Your task to perform on an android device: toggle priority inbox in the gmail app Image 0: 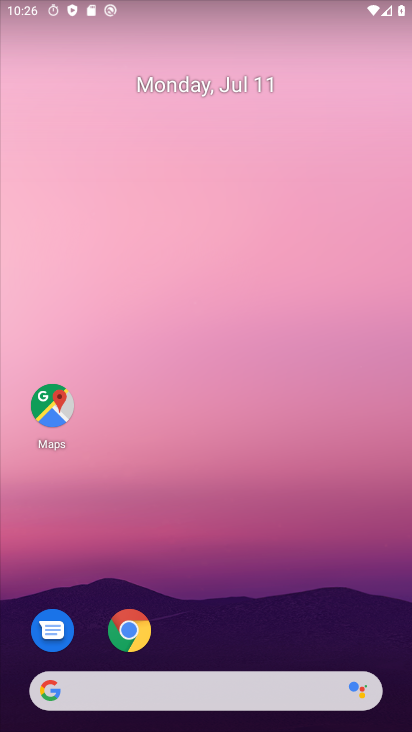
Step 0: drag from (181, 652) to (402, 35)
Your task to perform on an android device: toggle priority inbox in the gmail app Image 1: 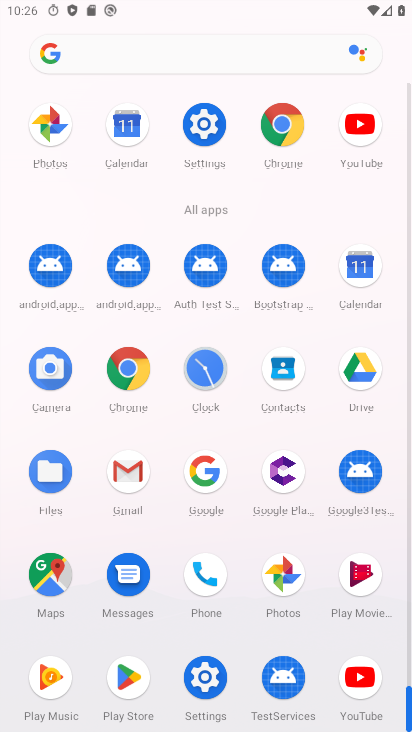
Step 1: click (130, 463)
Your task to perform on an android device: toggle priority inbox in the gmail app Image 2: 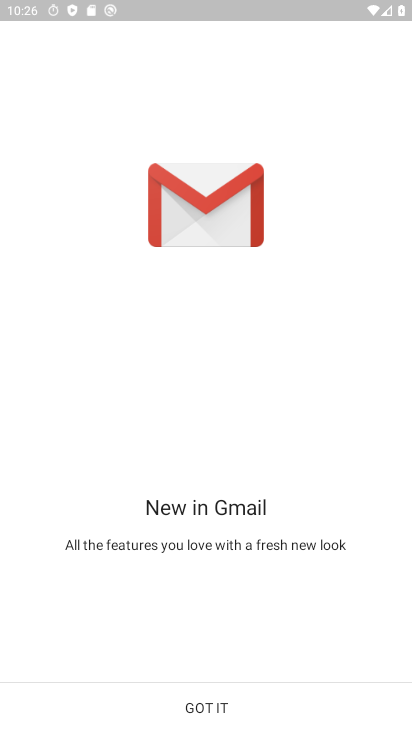
Step 2: click (232, 694)
Your task to perform on an android device: toggle priority inbox in the gmail app Image 3: 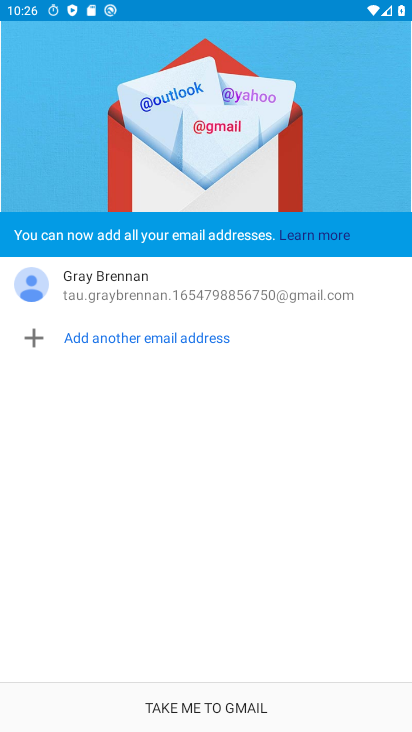
Step 3: click (209, 688)
Your task to perform on an android device: toggle priority inbox in the gmail app Image 4: 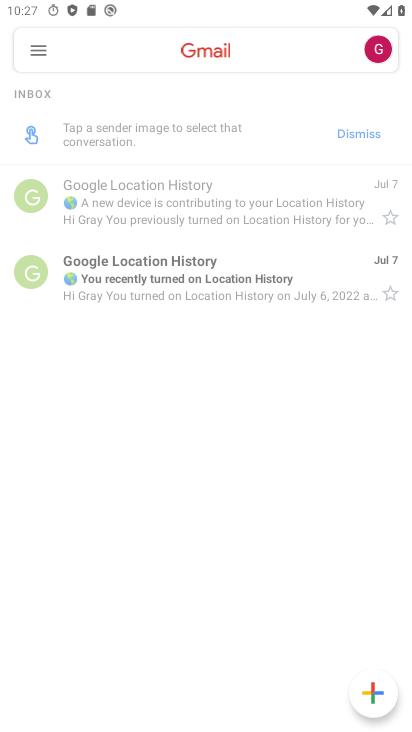
Step 4: click (35, 40)
Your task to perform on an android device: toggle priority inbox in the gmail app Image 5: 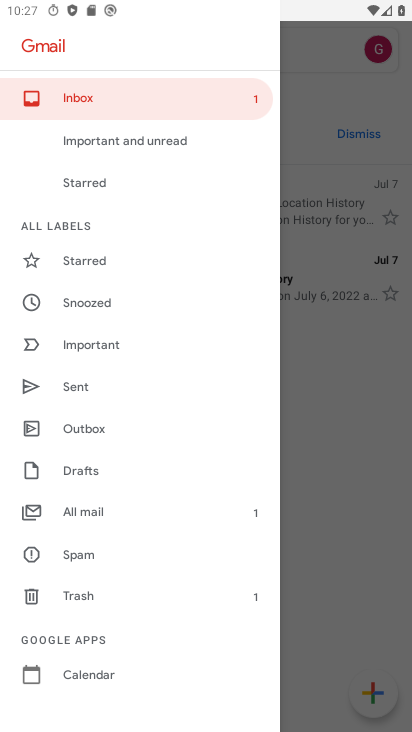
Step 5: drag from (118, 643) to (114, 154)
Your task to perform on an android device: toggle priority inbox in the gmail app Image 6: 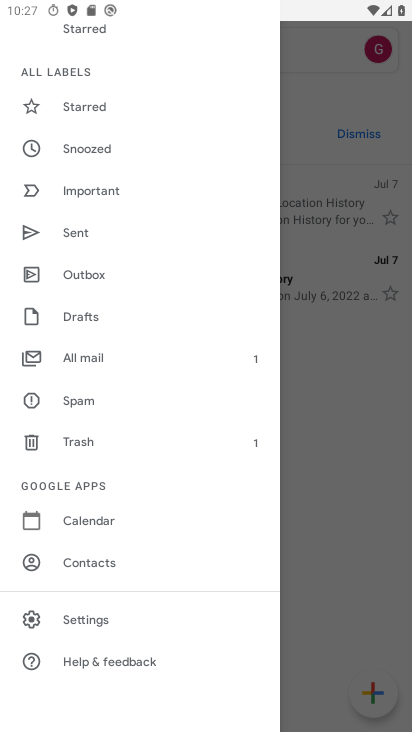
Step 6: click (87, 621)
Your task to perform on an android device: toggle priority inbox in the gmail app Image 7: 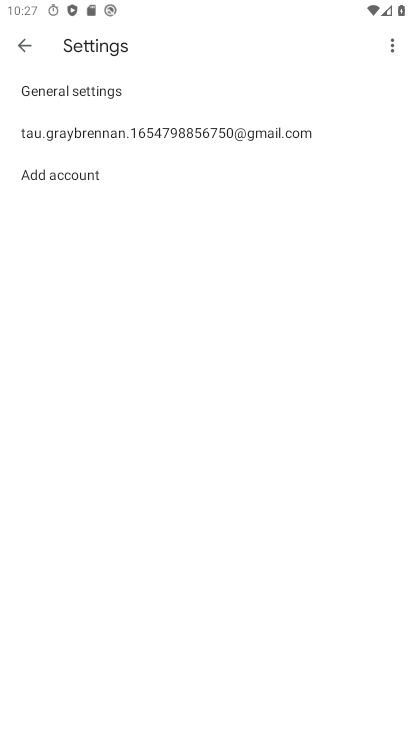
Step 7: click (230, 120)
Your task to perform on an android device: toggle priority inbox in the gmail app Image 8: 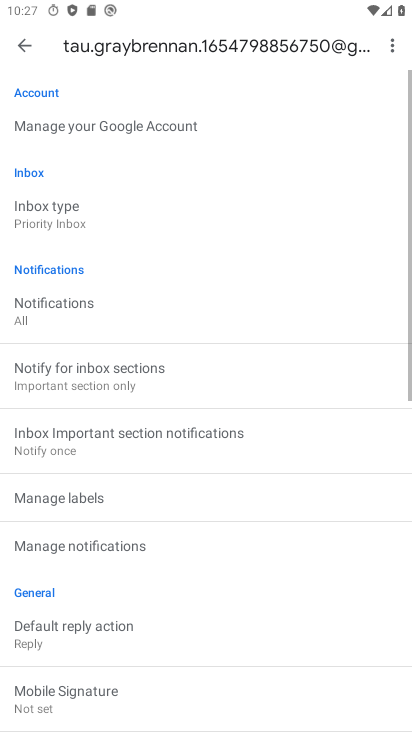
Step 8: click (69, 204)
Your task to perform on an android device: toggle priority inbox in the gmail app Image 9: 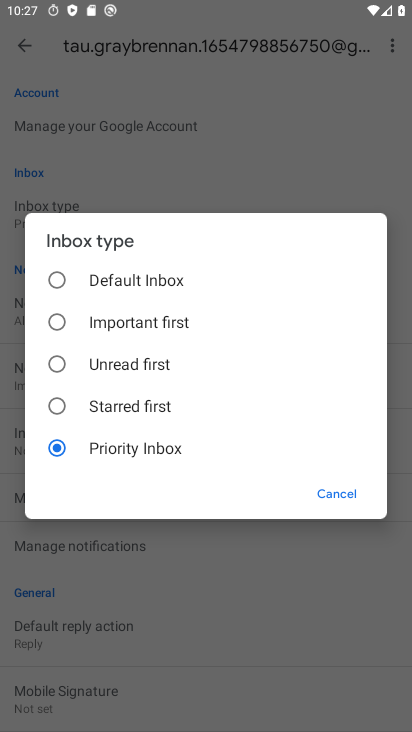
Step 9: click (46, 275)
Your task to perform on an android device: toggle priority inbox in the gmail app Image 10: 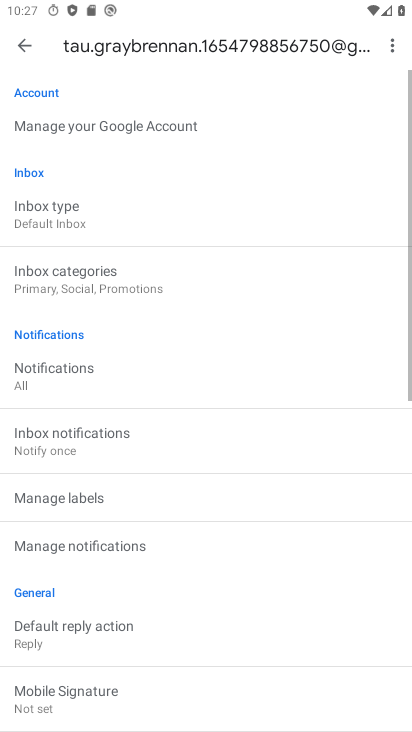
Step 10: task complete